Your task to perform on an android device: toggle data saver in the chrome app Image 0: 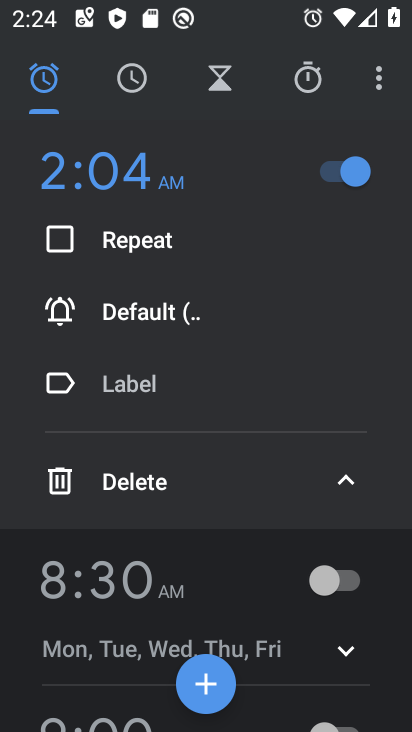
Step 0: press home button
Your task to perform on an android device: toggle data saver in the chrome app Image 1: 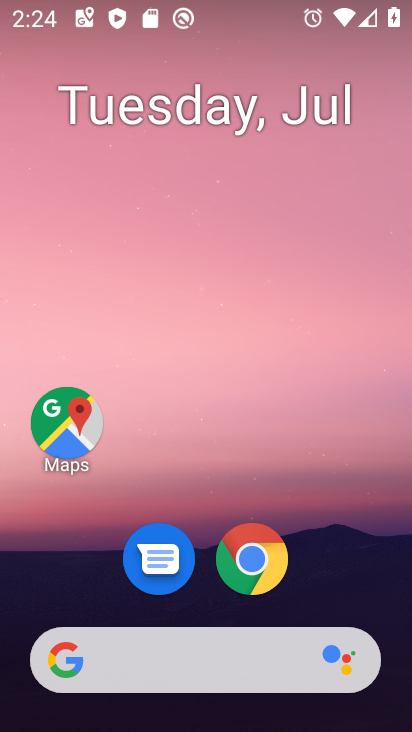
Step 1: drag from (332, 568) to (353, 135)
Your task to perform on an android device: toggle data saver in the chrome app Image 2: 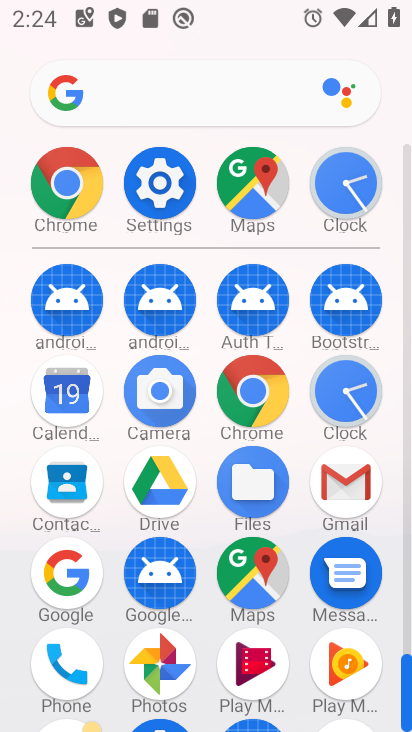
Step 2: click (270, 386)
Your task to perform on an android device: toggle data saver in the chrome app Image 3: 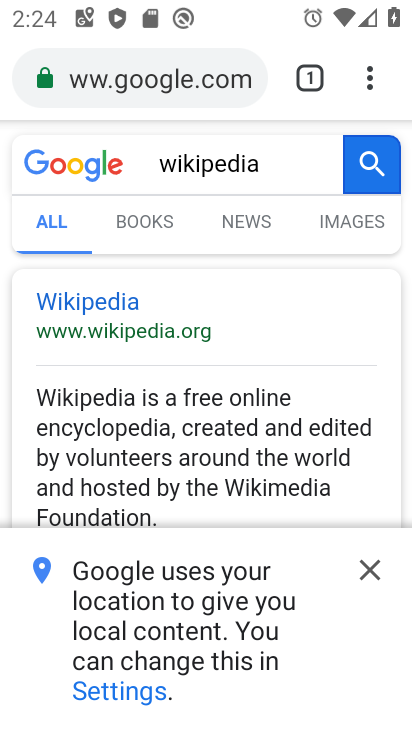
Step 3: click (368, 85)
Your task to perform on an android device: toggle data saver in the chrome app Image 4: 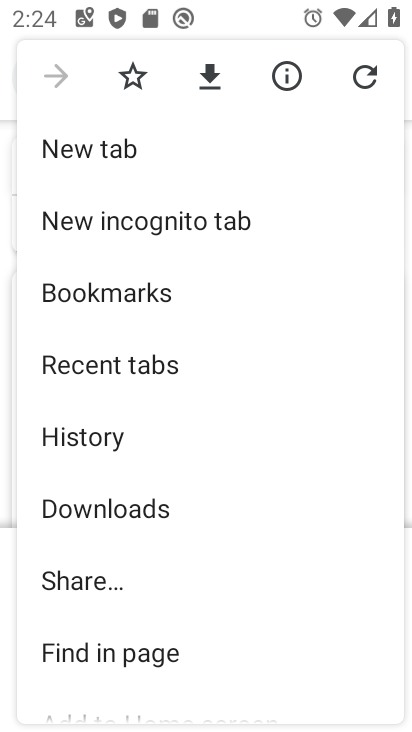
Step 4: drag from (301, 344) to (312, 301)
Your task to perform on an android device: toggle data saver in the chrome app Image 5: 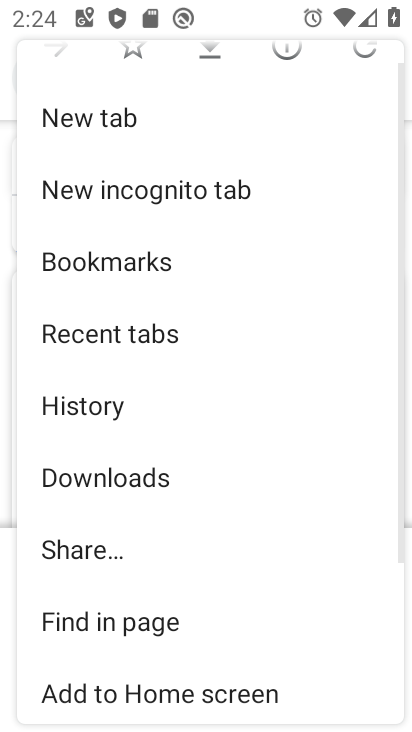
Step 5: drag from (301, 403) to (301, 352)
Your task to perform on an android device: toggle data saver in the chrome app Image 6: 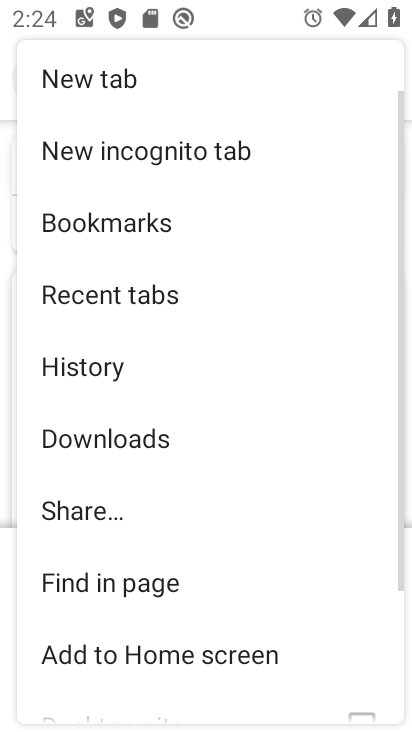
Step 6: drag from (305, 404) to (303, 348)
Your task to perform on an android device: toggle data saver in the chrome app Image 7: 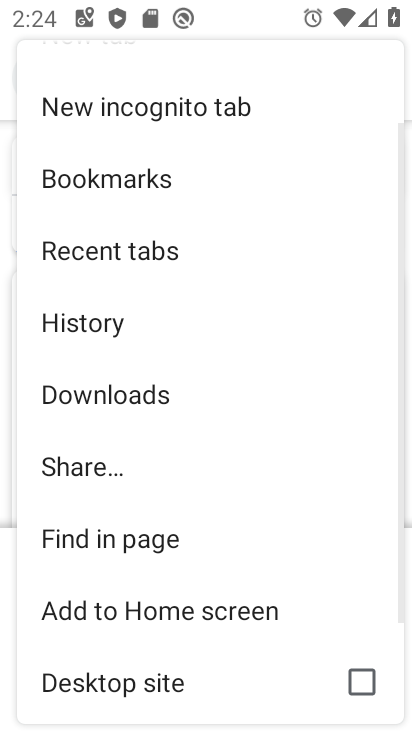
Step 7: drag from (303, 425) to (314, 349)
Your task to perform on an android device: toggle data saver in the chrome app Image 8: 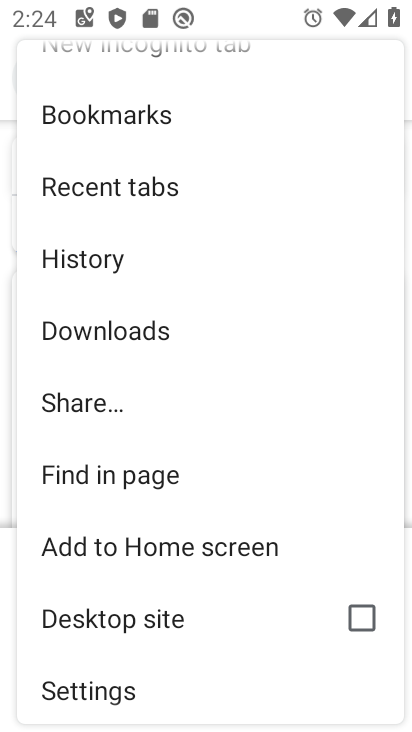
Step 8: drag from (294, 533) to (302, 455)
Your task to perform on an android device: toggle data saver in the chrome app Image 9: 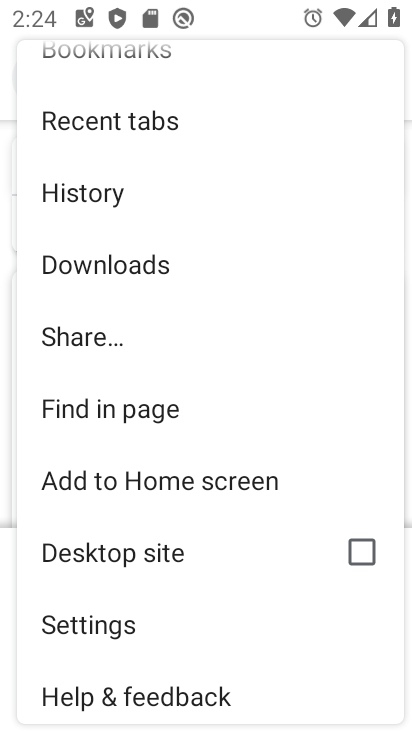
Step 9: click (252, 618)
Your task to perform on an android device: toggle data saver in the chrome app Image 10: 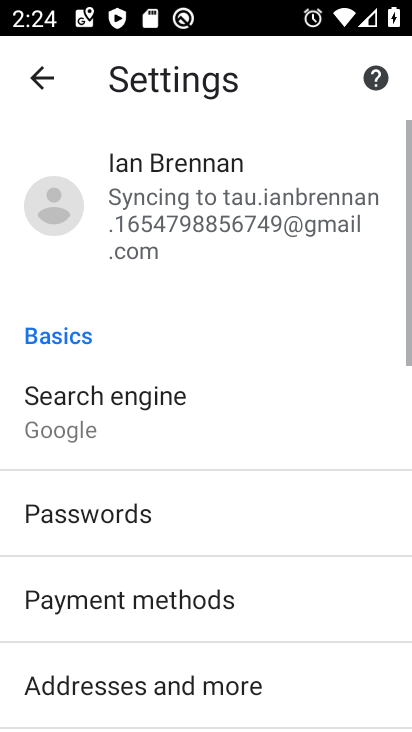
Step 10: drag from (285, 608) to (296, 540)
Your task to perform on an android device: toggle data saver in the chrome app Image 11: 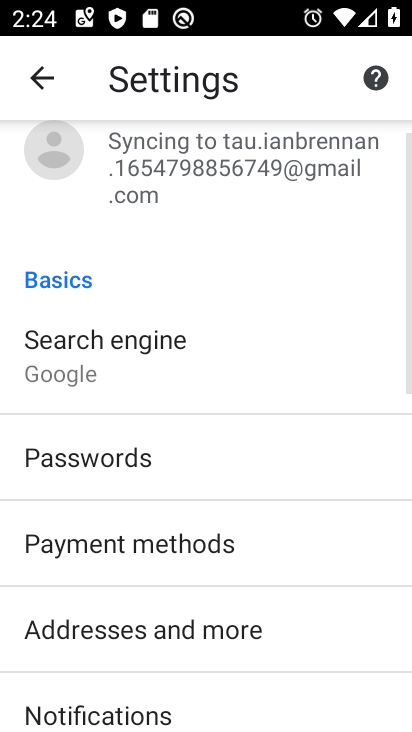
Step 11: drag from (303, 595) to (305, 524)
Your task to perform on an android device: toggle data saver in the chrome app Image 12: 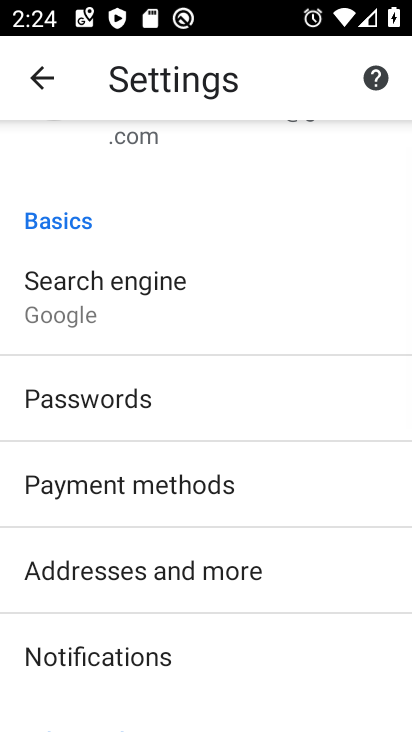
Step 12: drag from (305, 581) to (308, 501)
Your task to perform on an android device: toggle data saver in the chrome app Image 13: 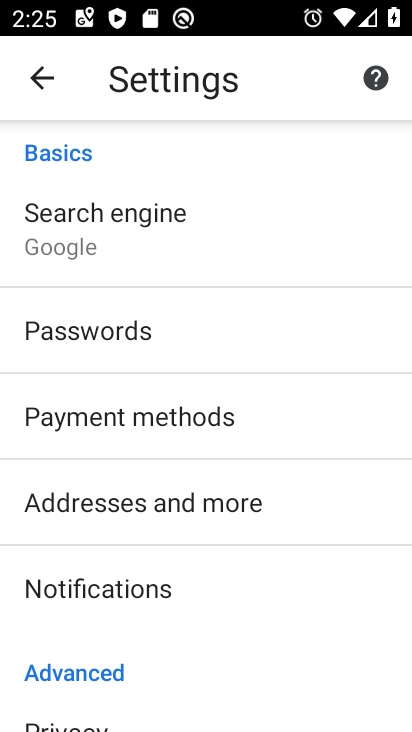
Step 13: drag from (308, 562) to (318, 507)
Your task to perform on an android device: toggle data saver in the chrome app Image 14: 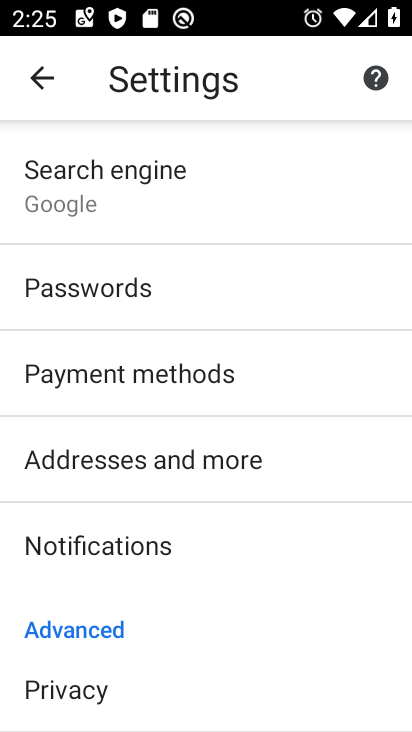
Step 14: drag from (318, 571) to (318, 466)
Your task to perform on an android device: toggle data saver in the chrome app Image 15: 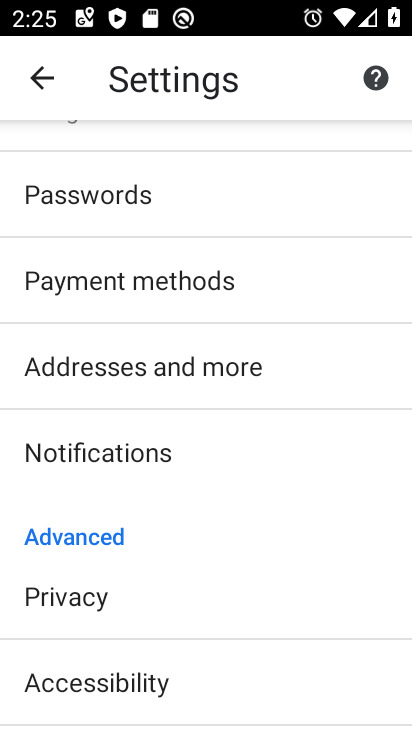
Step 15: drag from (311, 577) to (321, 453)
Your task to perform on an android device: toggle data saver in the chrome app Image 16: 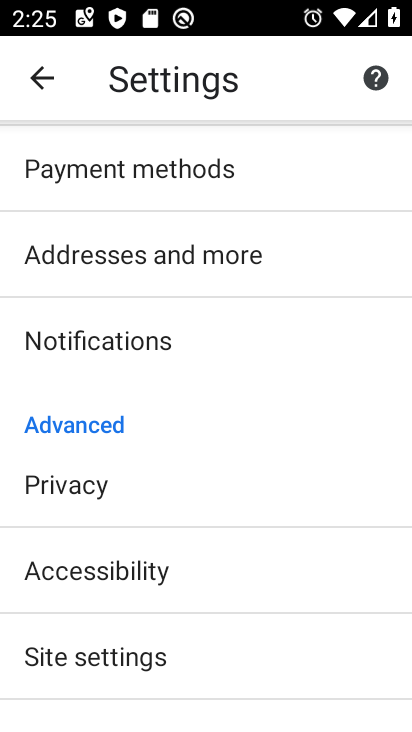
Step 16: drag from (307, 523) to (314, 430)
Your task to perform on an android device: toggle data saver in the chrome app Image 17: 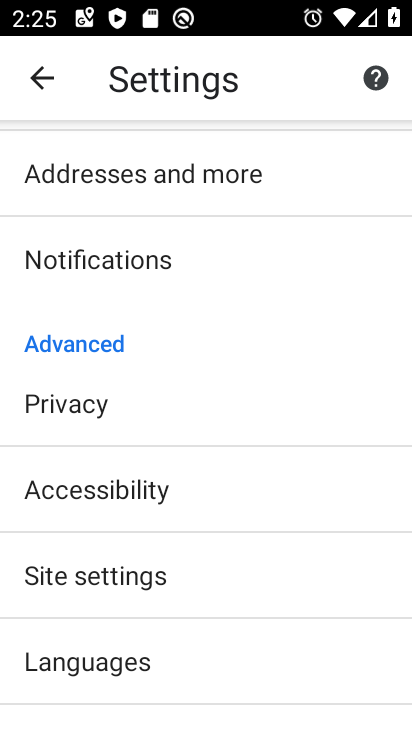
Step 17: drag from (304, 549) to (289, 247)
Your task to perform on an android device: toggle data saver in the chrome app Image 18: 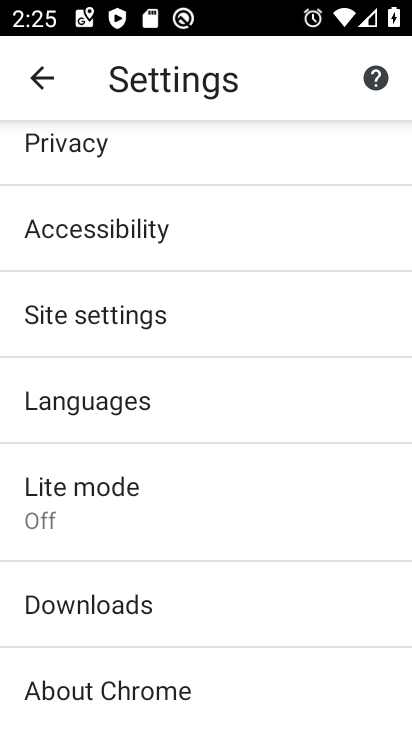
Step 18: click (265, 480)
Your task to perform on an android device: toggle data saver in the chrome app Image 19: 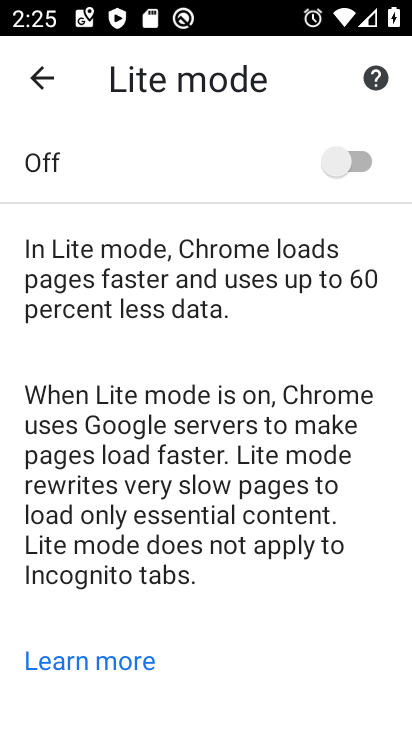
Step 19: click (358, 156)
Your task to perform on an android device: toggle data saver in the chrome app Image 20: 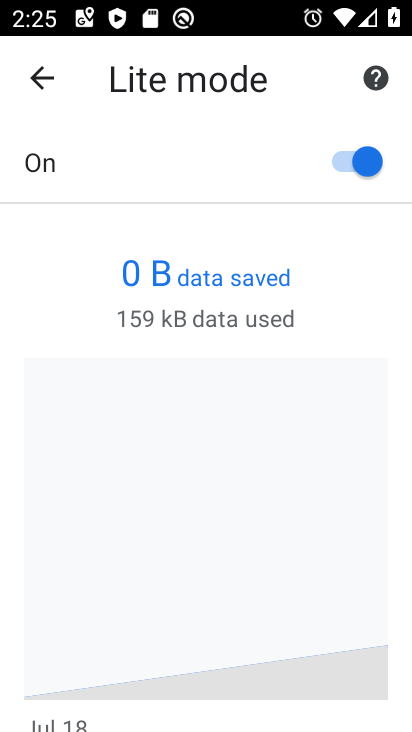
Step 20: task complete